Your task to perform on an android device: toggle notification dots Image 0: 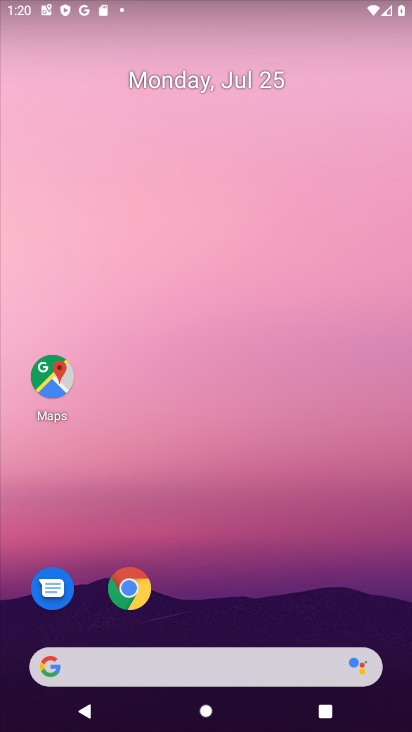
Step 0: drag from (183, 587) to (251, 125)
Your task to perform on an android device: toggle notification dots Image 1: 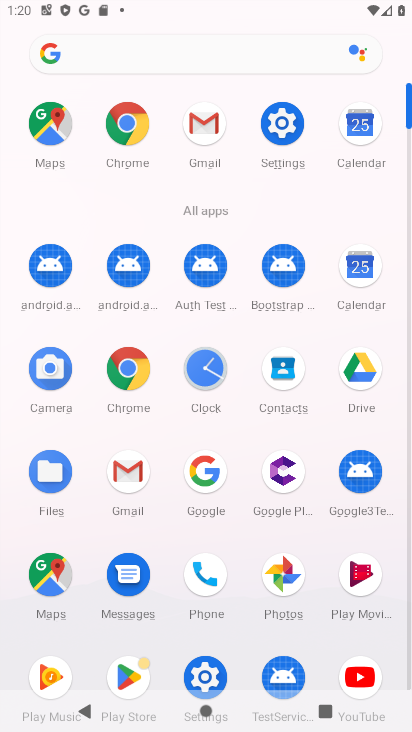
Step 1: click (287, 131)
Your task to perform on an android device: toggle notification dots Image 2: 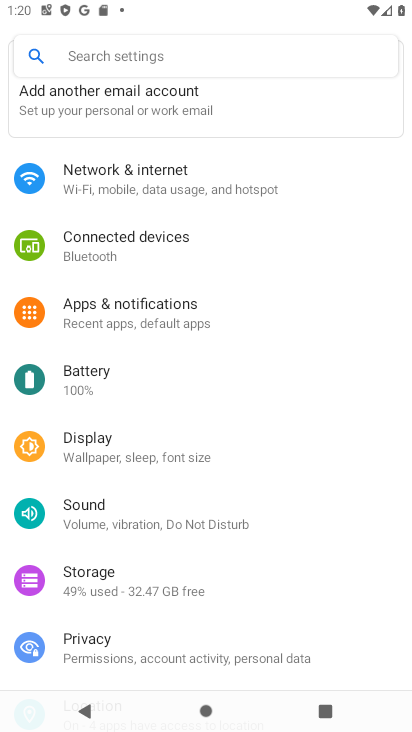
Step 2: click (158, 327)
Your task to perform on an android device: toggle notification dots Image 3: 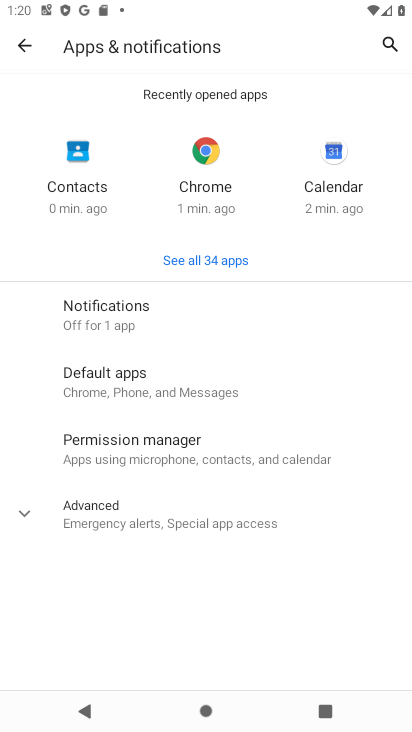
Step 3: click (109, 330)
Your task to perform on an android device: toggle notification dots Image 4: 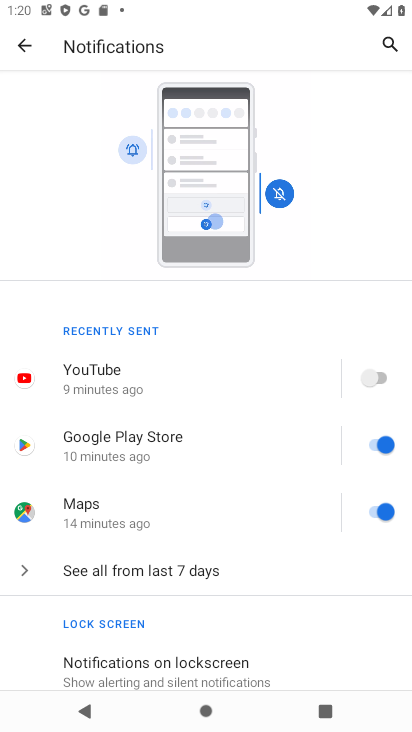
Step 4: drag from (125, 617) to (144, 354)
Your task to perform on an android device: toggle notification dots Image 5: 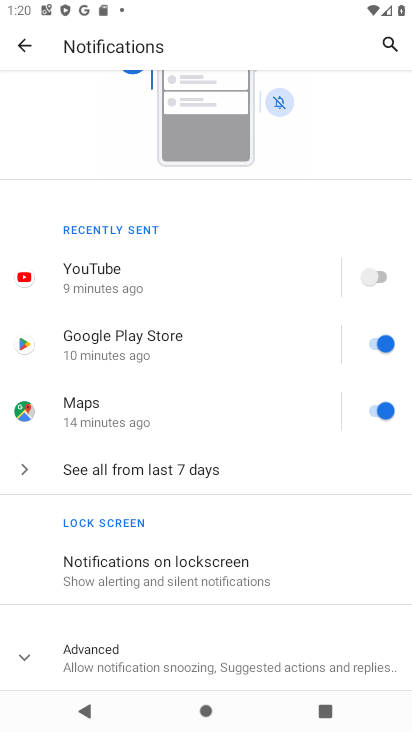
Step 5: click (85, 647)
Your task to perform on an android device: toggle notification dots Image 6: 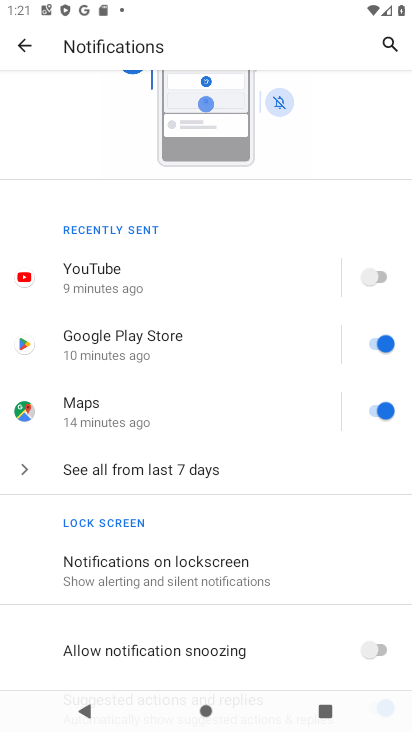
Step 6: drag from (158, 659) to (170, 386)
Your task to perform on an android device: toggle notification dots Image 7: 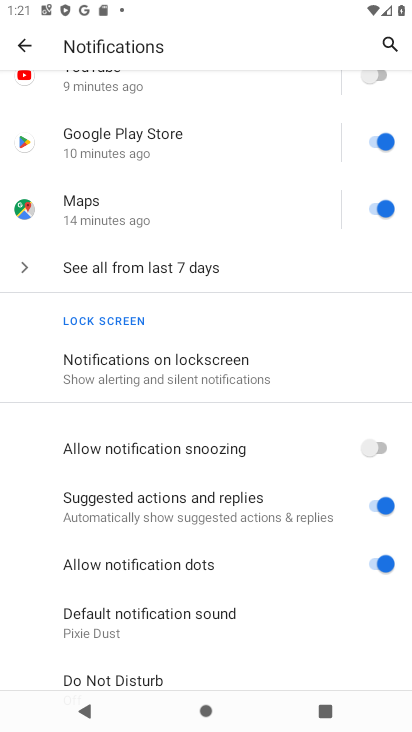
Step 7: click (378, 563)
Your task to perform on an android device: toggle notification dots Image 8: 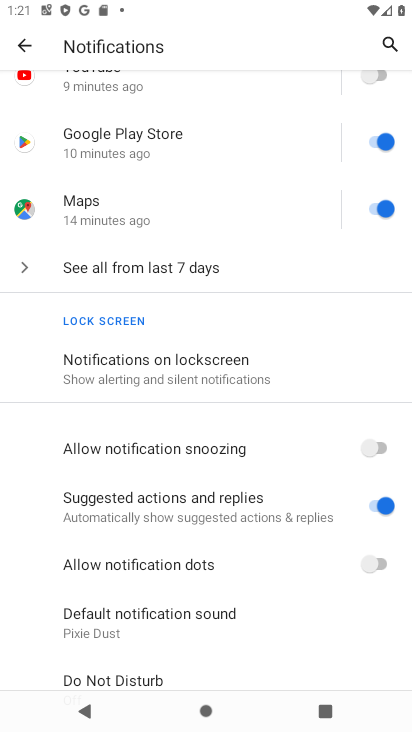
Step 8: task complete